Your task to perform on an android device: check battery use Image 0: 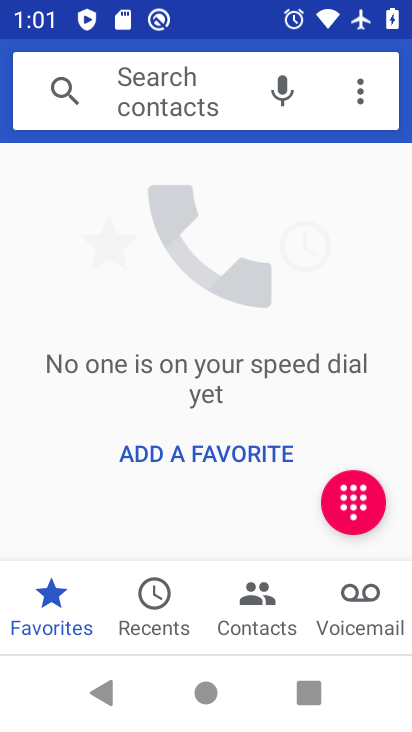
Step 0: press home button
Your task to perform on an android device: check battery use Image 1: 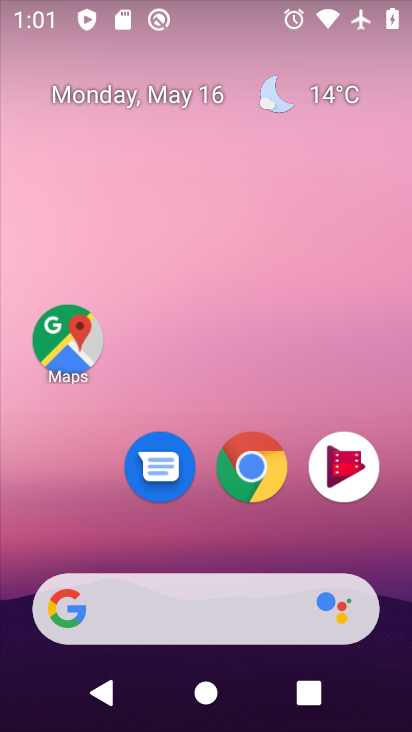
Step 1: drag from (201, 510) to (278, 200)
Your task to perform on an android device: check battery use Image 2: 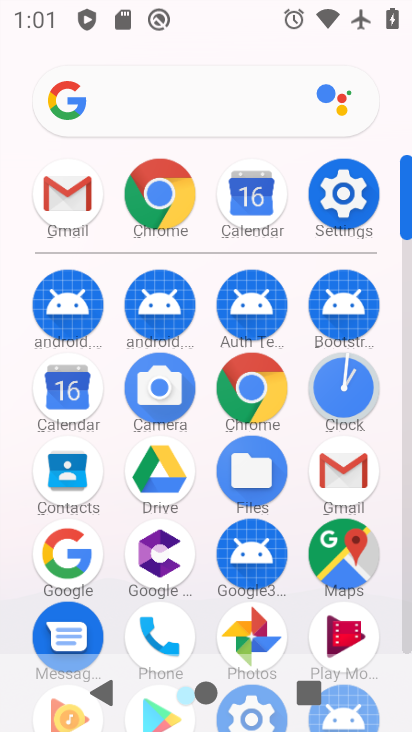
Step 2: click (334, 198)
Your task to perform on an android device: check battery use Image 3: 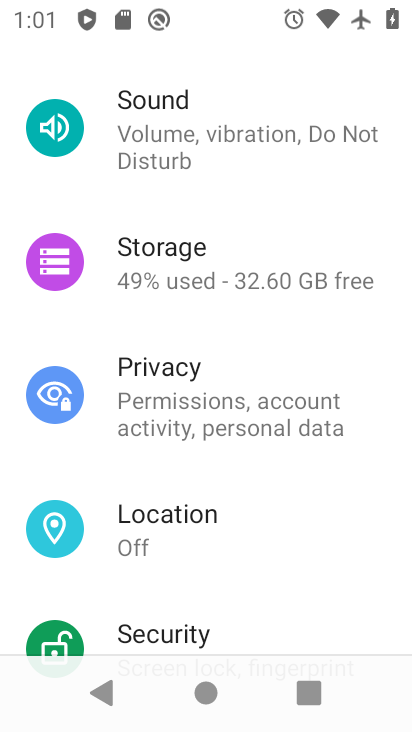
Step 3: drag from (255, 166) to (248, 575)
Your task to perform on an android device: check battery use Image 4: 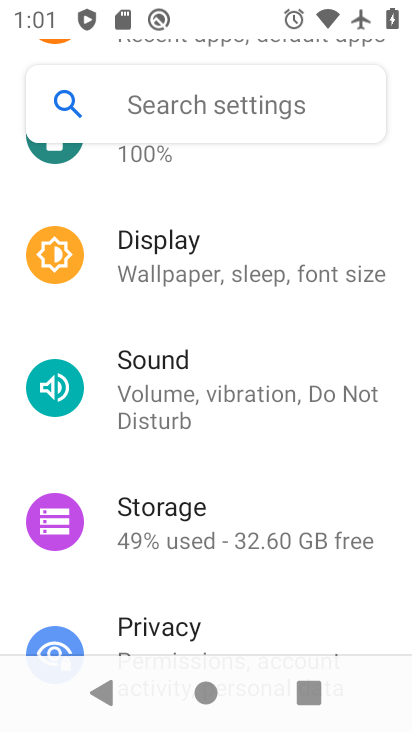
Step 4: drag from (213, 171) to (187, 581)
Your task to perform on an android device: check battery use Image 5: 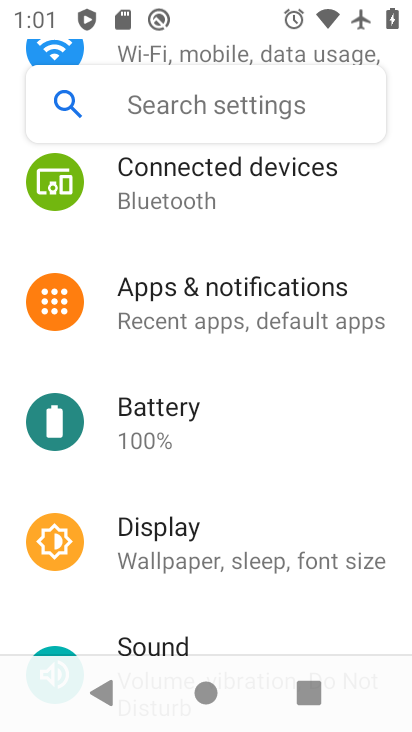
Step 5: click (147, 412)
Your task to perform on an android device: check battery use Image 6: 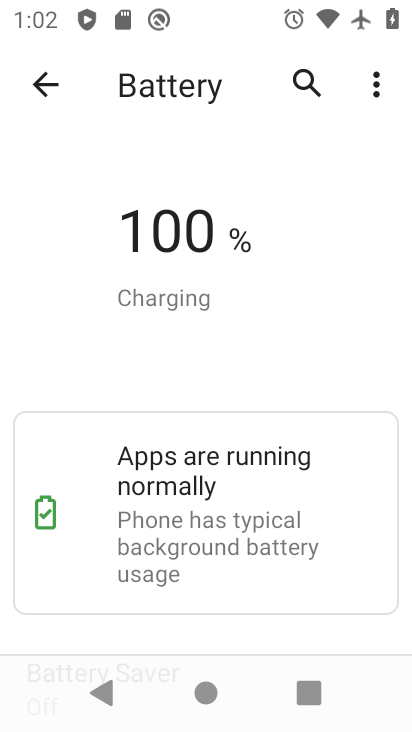
Step 6: task complete